Your task to perform on an android device: Go to sound settings Image 0: 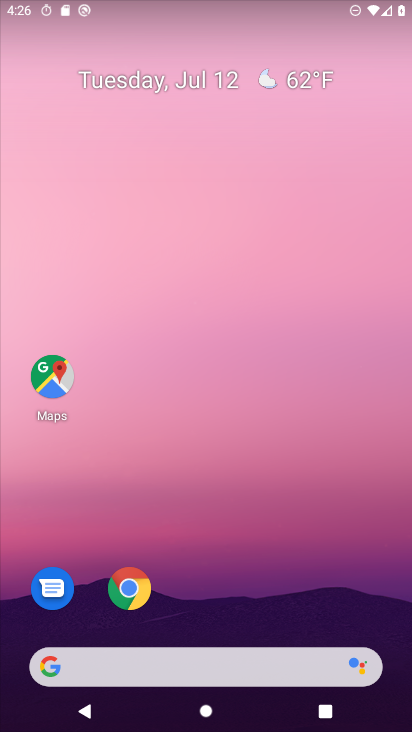
Step 0: drag from (222, 618) to (283, 81)
Your task to perform on an android device: Go to sound settings Image 1: 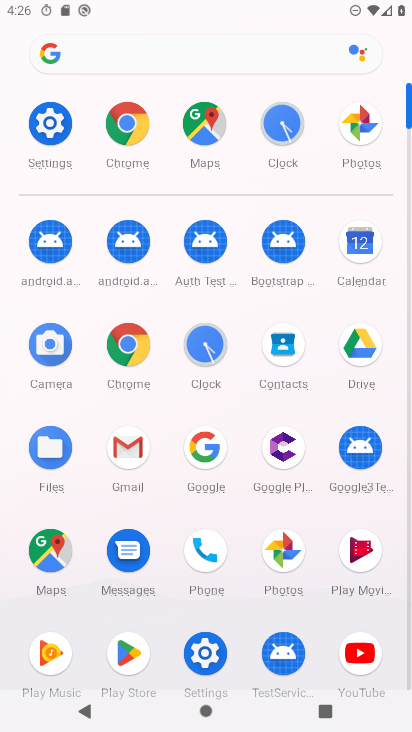
Step 1: click (204, 663)
Your task to perform on an android device: Go to sound settings Image 2: 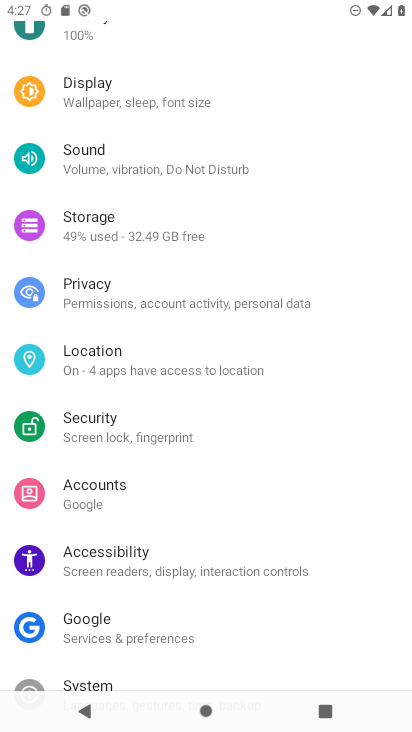
Step 2: click (191, 161)
Your task to perform on an android device: Go to sound settings Image 3: 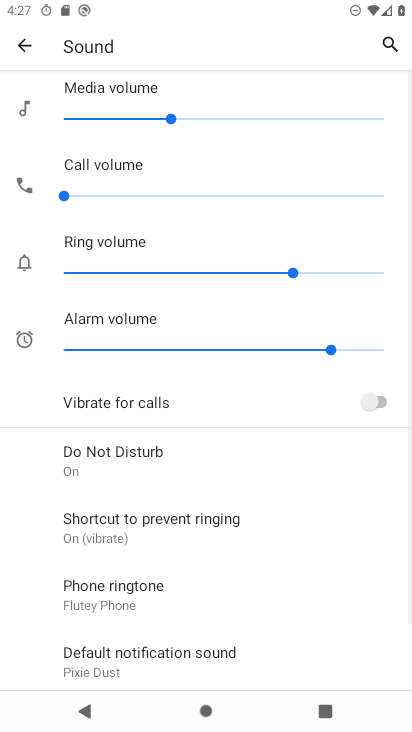
Step 3: task complete